Your task to perform on an android device: remove spam from my inbox in the gmail app Image 0: 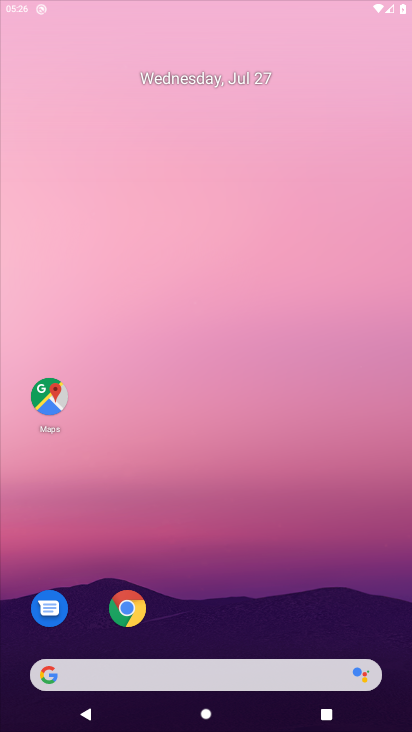
Step 0: press home button
Your task to perform on an android device: remove spam from my inbox in the gmail app Image 1: 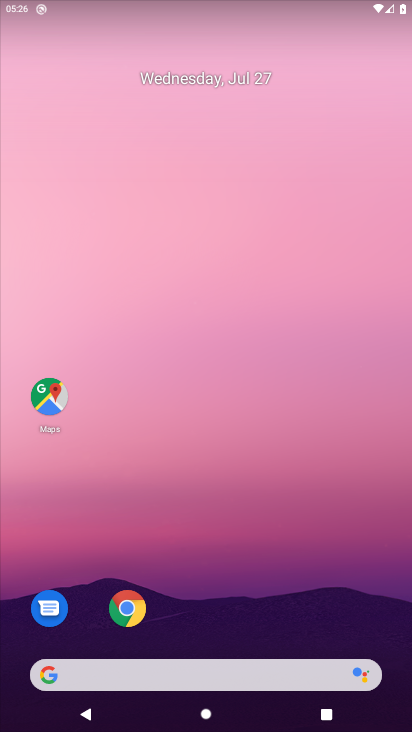
Step 1: drag from (213, 628) to (10, 7)
Your task to perform on an android device: remove spam from my inbox in the gmail app Image 2: 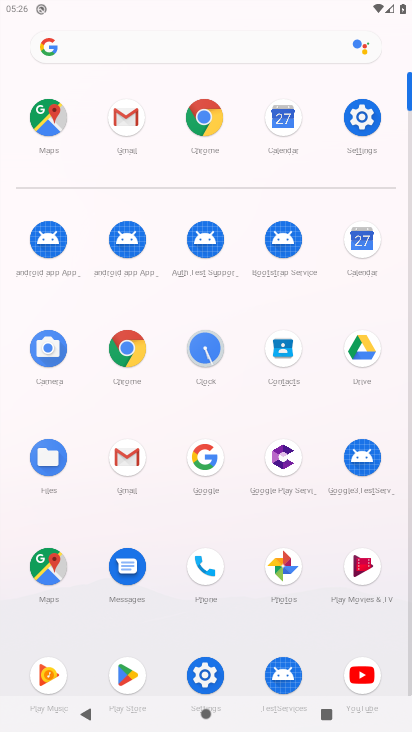
Step 2: click (128, 134)
Your task to perform on an android device: remove spam from my inbox in the gmail app Image 3: 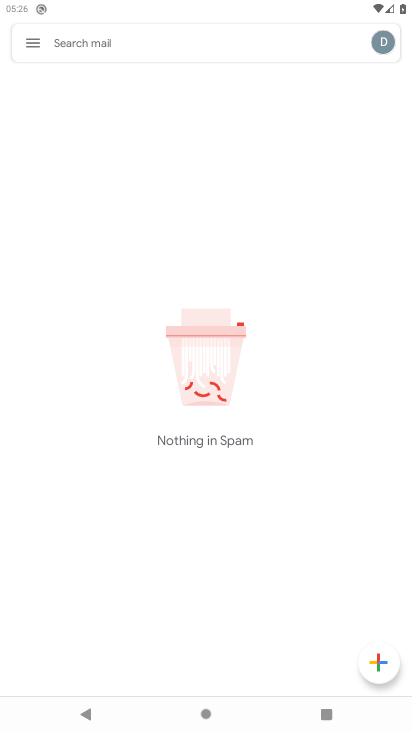
Step 3: click (33, 47)
Your task to perform on an android device: remove spam from my inbox in the gmail app Image 4: 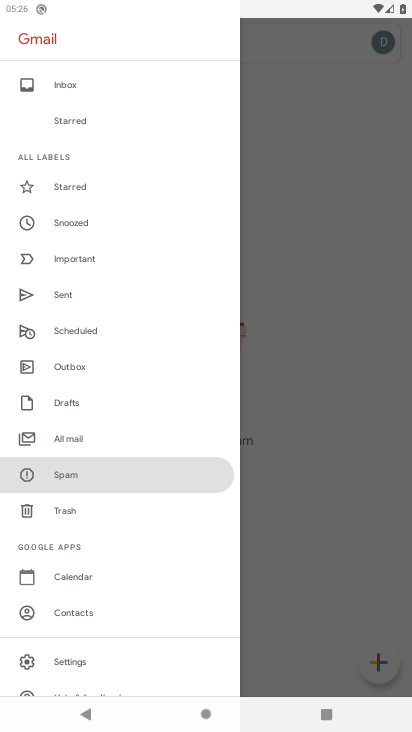
Step 4: click (63, 476)
Your task to perform on an android device: remove spam from my inbox in the gmail app Image 5: 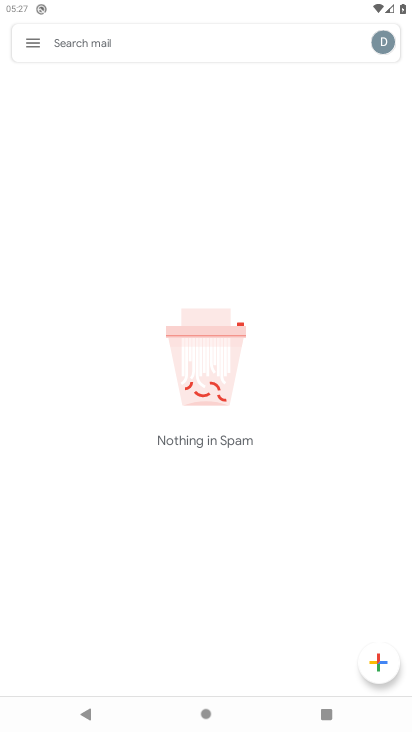
Step 5: task complete